Your task to perform on an android device: Show me recent news Image 0: 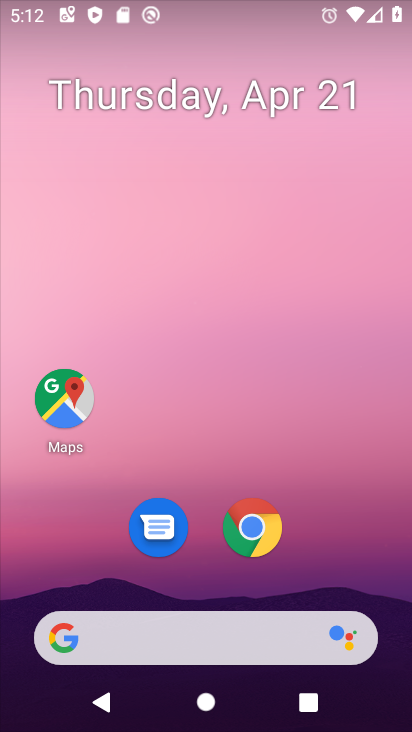
Step 0: drag from (380, 564) to (379, 96)
Your task to perform on an android device: Show me recent news Image 1: 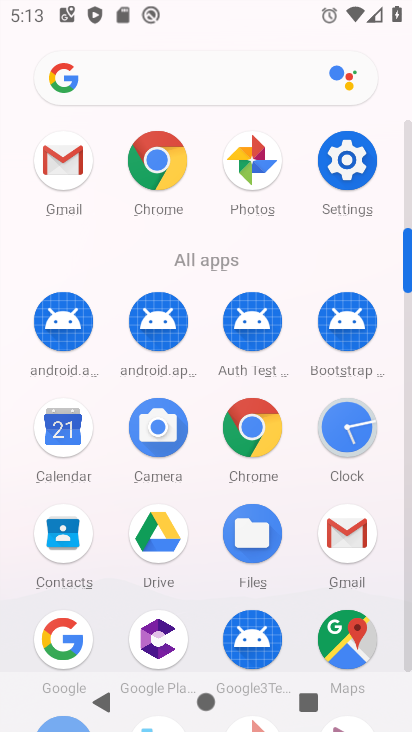
Step 1: click (67, 632)
Your task to perform on an android device: Show me recent news Image 2: 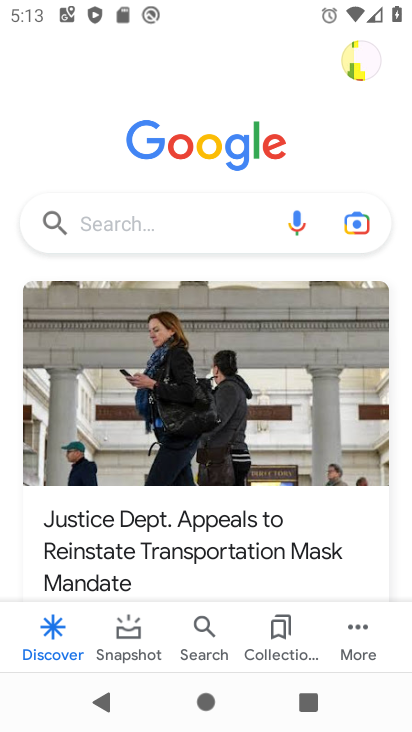
Step 2: task complete